Your task to perform on an android device: refresh tabs in the chrome app Image 0: 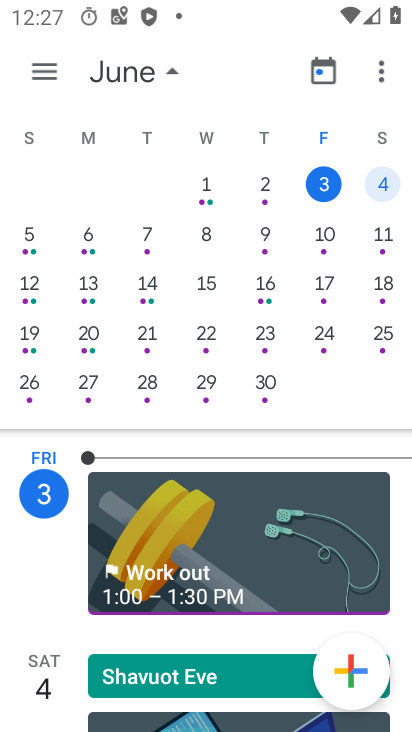
Step 0: press home button
Your task to perform on an android device: refresh tabs in the chrome app Image 1: 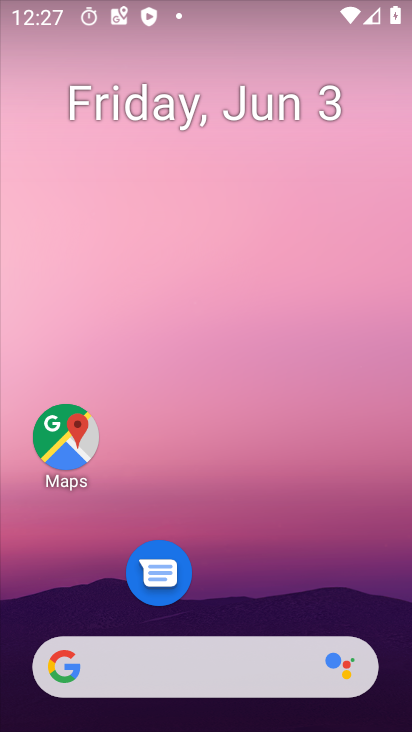
Step 1: drag from (256, 599) to (338, 80)
Your task to perform on an android device: refresh tabs in the chrome app Image 2: 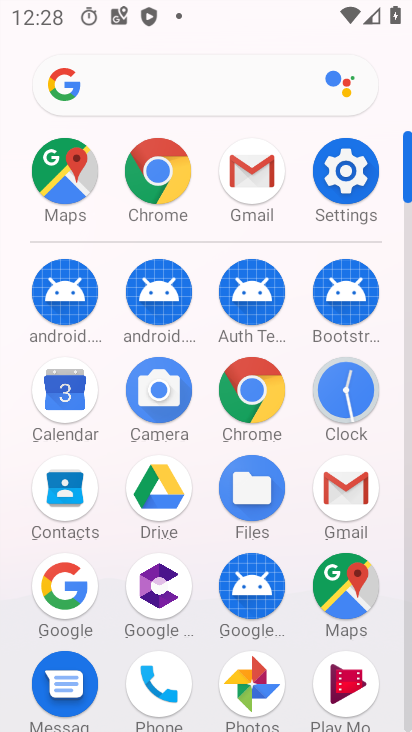
Step 2: click (262, 383)
Your task to perform on an android device: refresh tabs in the chrome app Image 3: 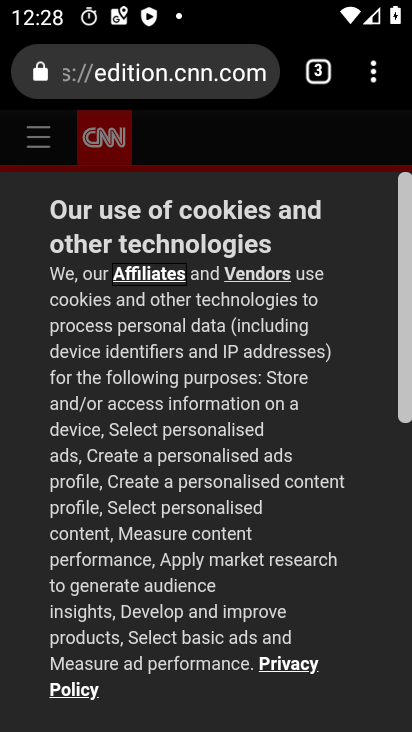
Step 3: task complete